Your task to perform on an android device: What is the news today? Image 0: 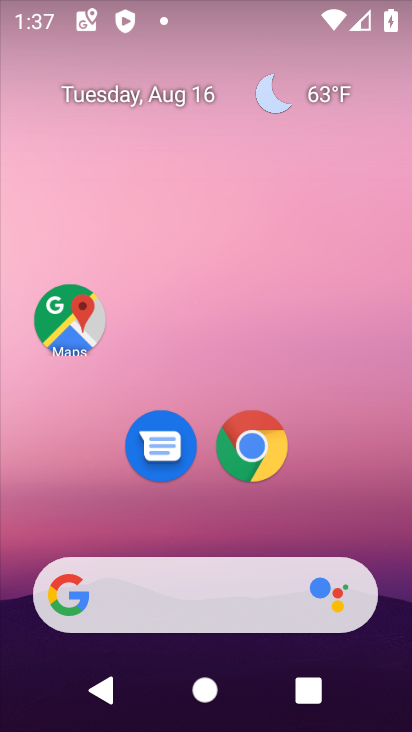
Step 0: press home button
Your task to perform on an android device: What is the news today? Image 1: 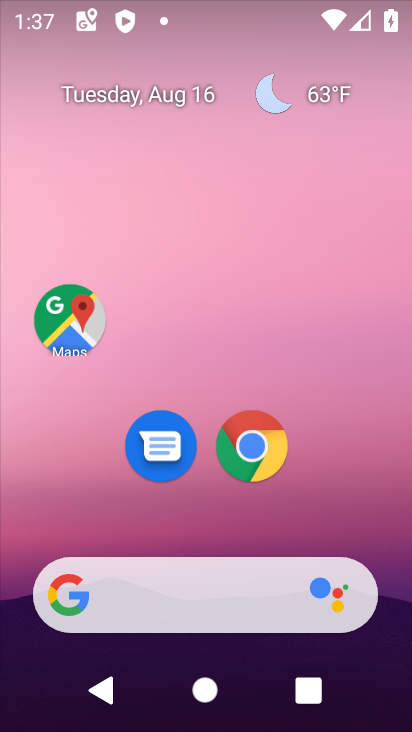
Step 1: task complete